Your task to perform on an android device: turn on translation in the chrome app Image 0: 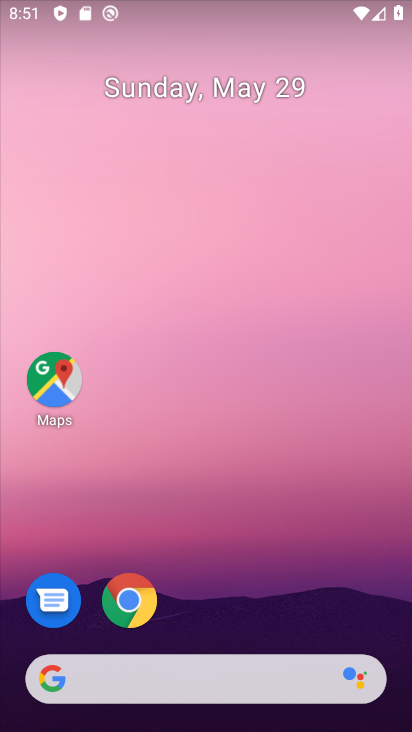
Step 0: click (130, 600)
Your task to perform on an android device: turn on translation in the chrome app Image 1: 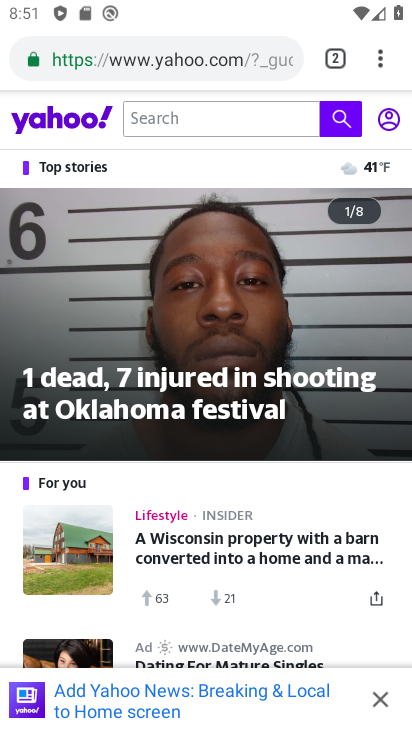
Step 1: click (381, 66)
Your task to perform on an android device: turn on translation in the chrome app Image 2: 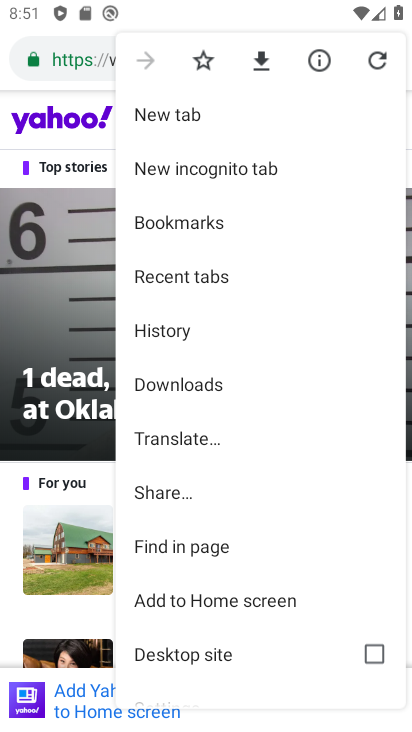
Step 2: drag from (199, 643) to (196, 381)
Your task to perform on an android device: turn on translation in the chrome app Image 3: 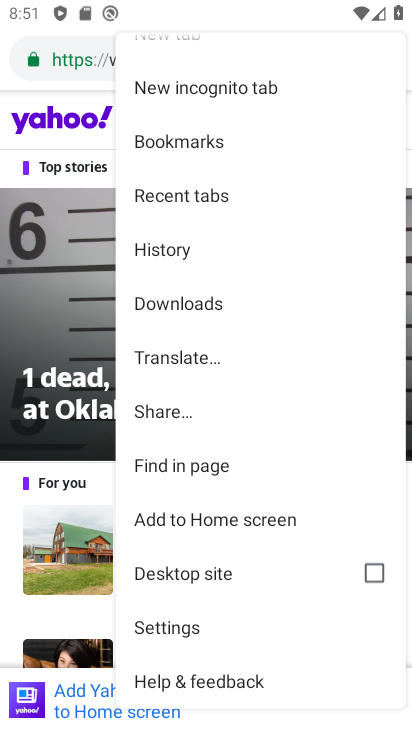
Step 3: click (150, 625)
Your task to perform on an android device: turn on translation in the chrome app Image 4: 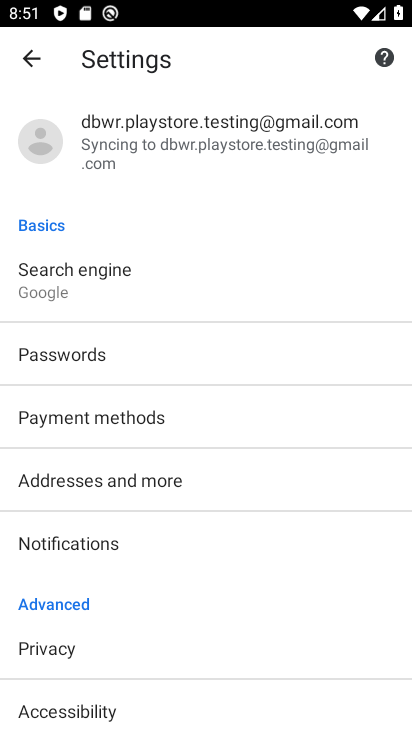
Step 4: drag from (117, 682) to (119, 353)
Your task to perform on an android device: turn on translation in the chrome app Image 5: 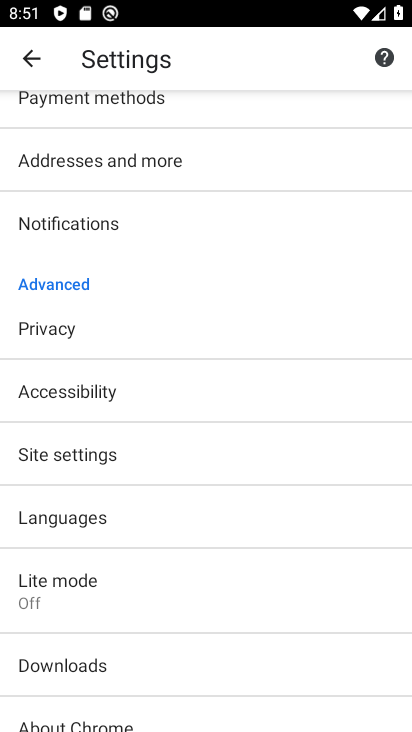
Step 5: click (74, 508)
Your task to perform on an android device: turn on translation in the chrome app Image 6: 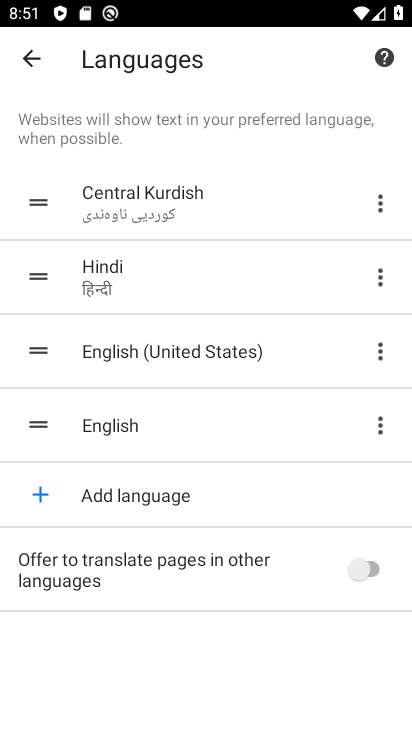
Step 6: click (374, 569)
Your task to perform on an android device: turn on translation in the chrome app Image 7: 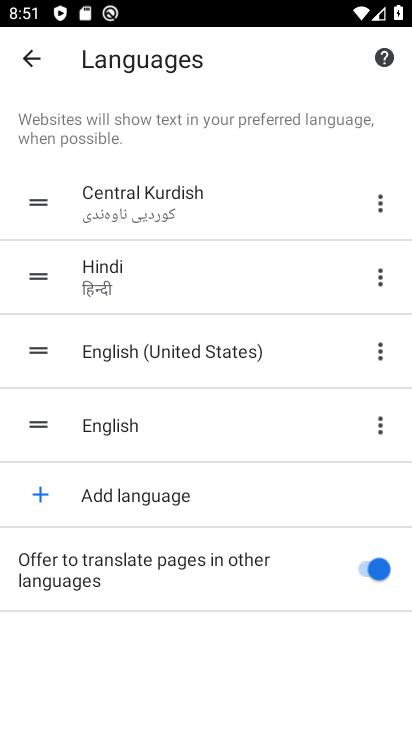
Step 7: task complete